Your task to perform on an android device: open app "Pinterest" (install if not already installed), go to login, and select forgot password Image 0: 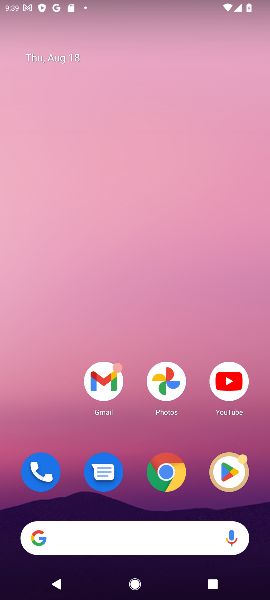
Step 0: click (231, 487)
Your task to perform on an android device: open app "Pinterest" (install if not already installed), go to login, and select forgot password Image 1: 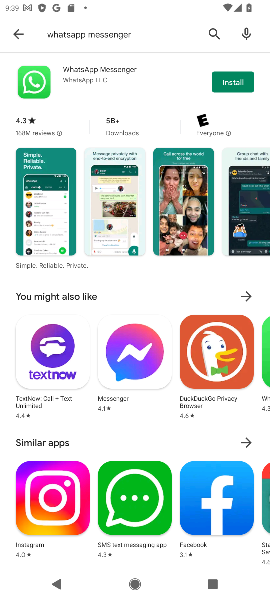
Step 1: click (214, 30)
Your task to perform on an android device: open app "Pinterest" (install if not already installed), go to login, and select forgot password Image 2: 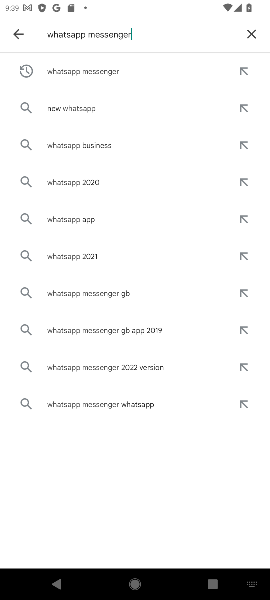
Step 2: click (248, 35)
Your task to perform on an android device: open app "Pinterest" (install if not already installed), go to login, and select forgot password Image 3: 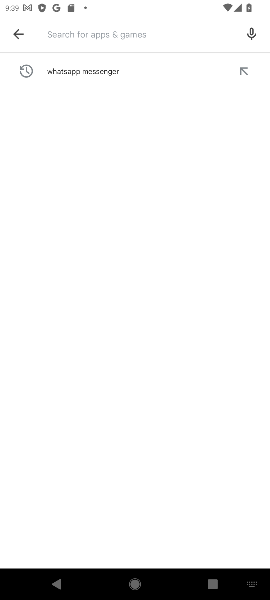
Step 3: type "pinterest"
Your task to perform on an android device: open app "Pinterest" (install if not already installed), go to login, and select forgot password Image 4: 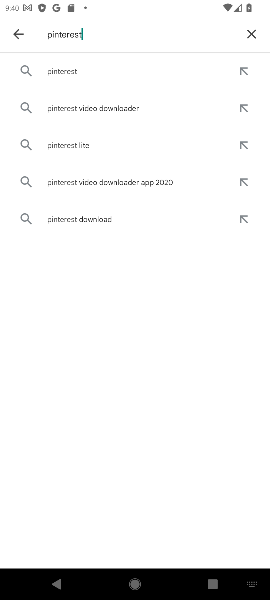
Step 4: click (56, 66)
Your task to perform on an android device: open app "Pinterest" (install if not already installed), go to login, and select forgot password Image 5: 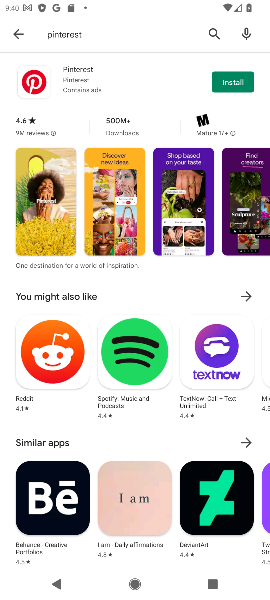
Step 5: click (247, 83)
Your task to perform on an android device: open app "Pinterest" (install if not already installed), go to login, and select forgot password Image 6: 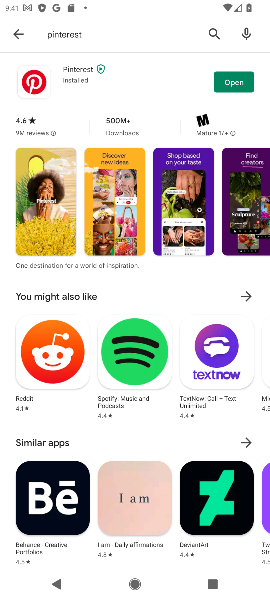
Step 6: click (220, 85)
Your task to perform on an android device: open app "Pinterest" (install if not already installed), go to login, and select forgot password Image 7: 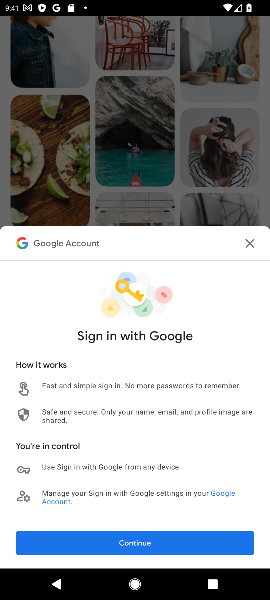
Step 7: click (240, 551)
Your task to perform on an android device: open app "Pinterest" (install if not already installed), go to login, and select forgot password Image 8: 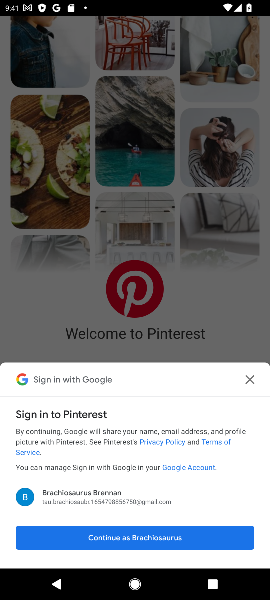
Step 8: click (244, 377)
Your task to perform on an android device: open app "Pinterest" (install if not already installed), go to login, and select forgot password Image 9: 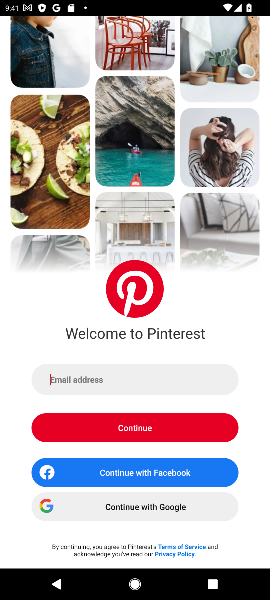
Step 9: task complete